Your task to perform on an android device: Open accessibility settings Image 0: 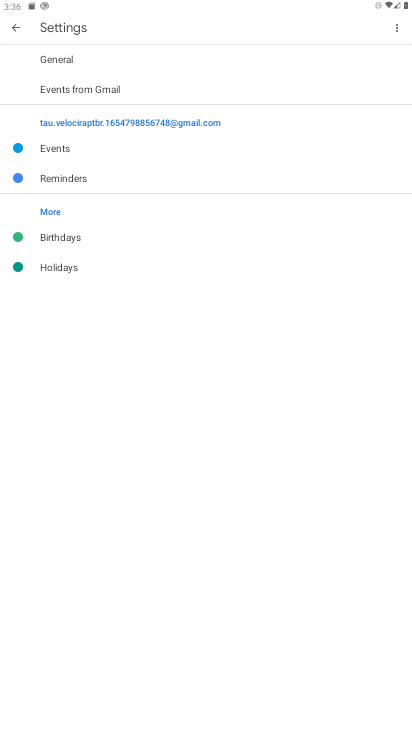
Step 0: press home button
Your task to perform on an android device: Open accessibility settings Image 1: 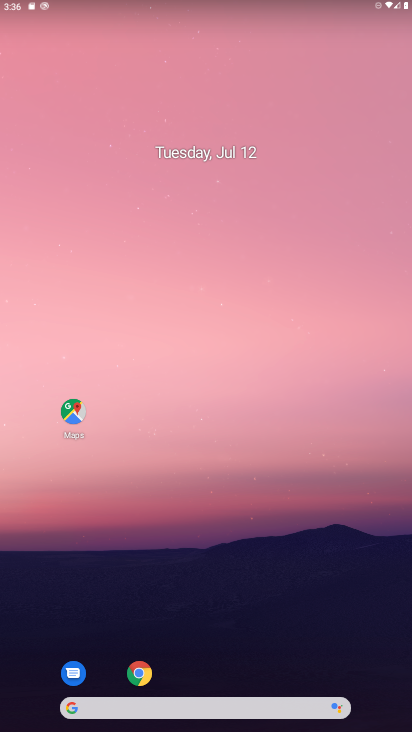
Step 1: drag from (187, 707) to (180, 52)
Your task to perform on an android device: Open accessibility settings Image 2: 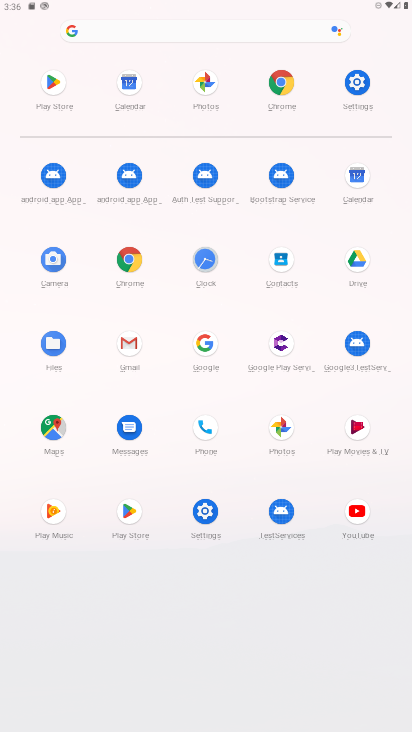
Step 2: click (358, 83)
Your task to perform on an android device: Open accessibility settings Image 3: 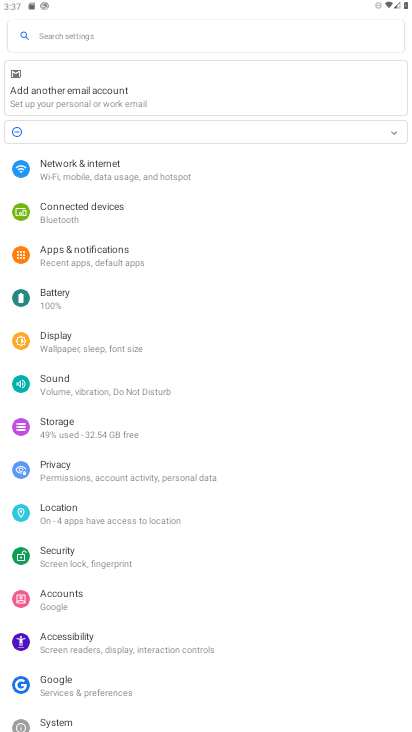
Step 3: click (71, 638)
Your task to perform on an android device: Open accessibility settings Image 4: 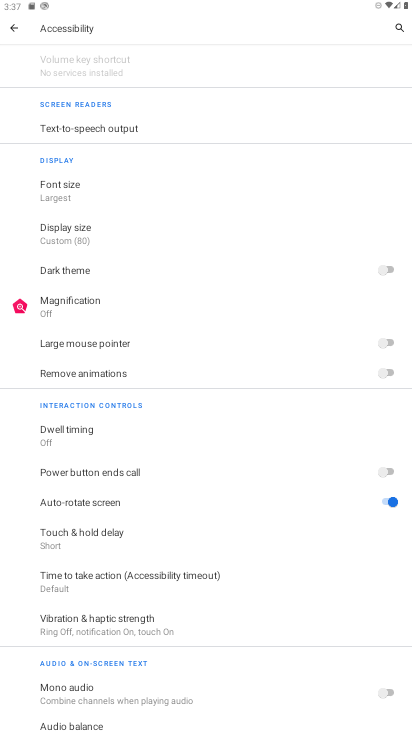
Step 4: task complete